Your task to perform on an android device: turn on airplane mode Image 0: 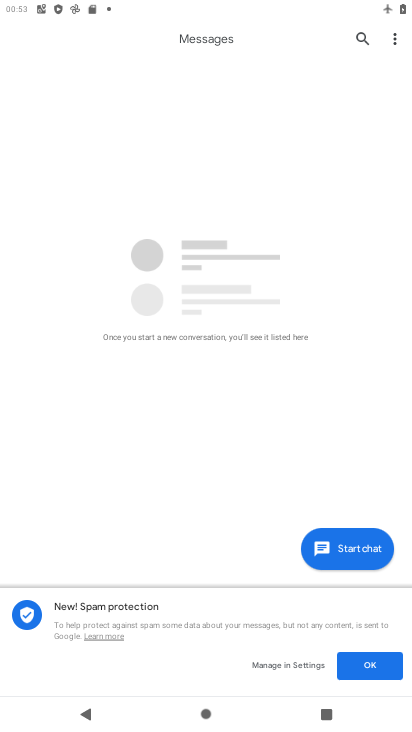
Step 0: press home button
Your task to perform on an android device: turn on airplane mode Image 1: 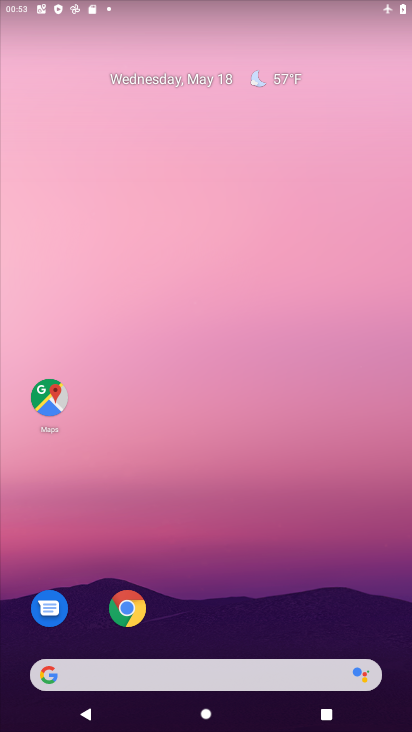
Step 1: drag from (223, 570) to (154, 221)
Your task to perform on an android device: turn on airplane mode Image 2: 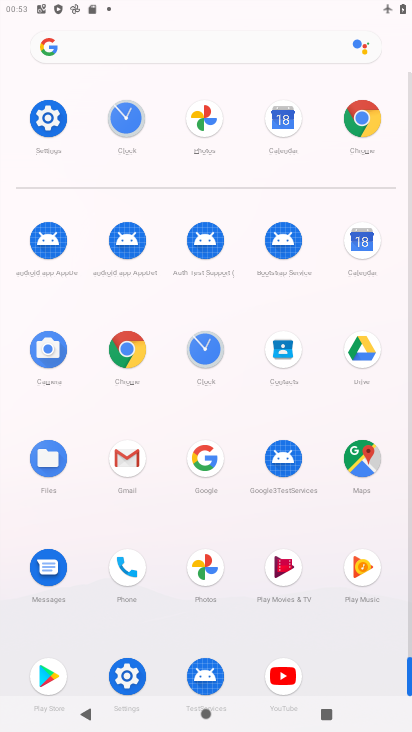
Step 2: click (45, 117)
Your task to perform on an android device: turn on airplane mode Image 3: 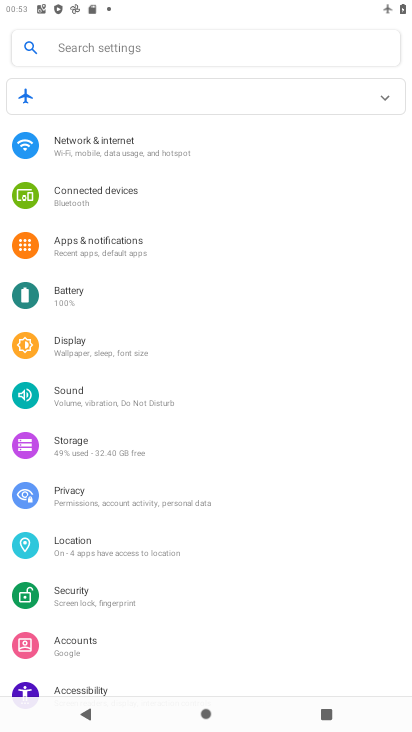
Step 3: click (85, 151)
Your task to perform on an android device: turn on airplane mode Image 4: 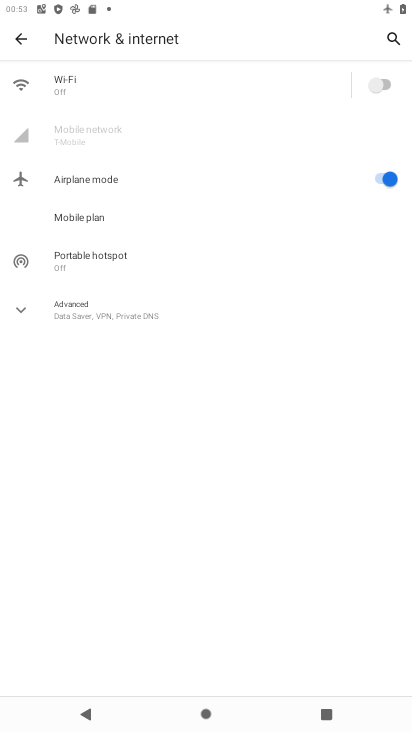
Step 4: task complete